Your task to perform on an android device: Go to Android settings Image 0: 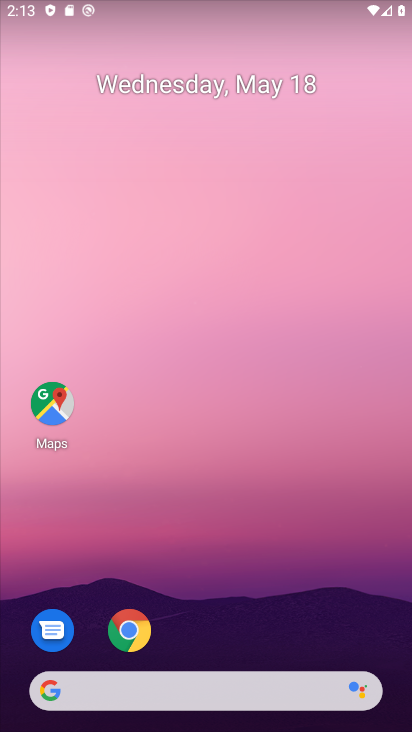
Step 0: drag from (225, 646) to (240, 478)
Your task to perform on an android device: Go to Android settings Image 1: 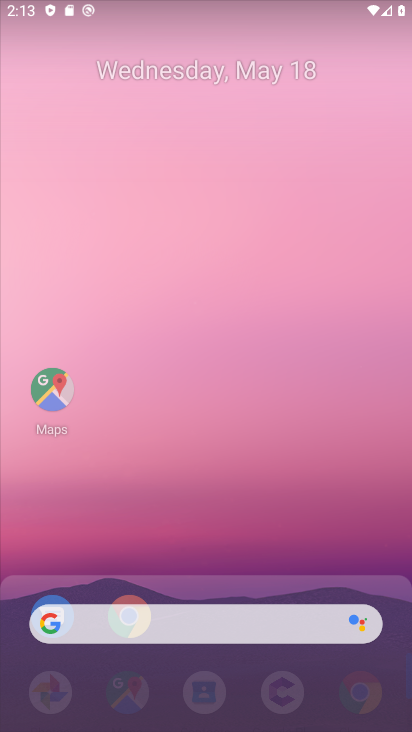
Step 1: click (304, 139)
Your task to perform on an android device: Go to Android settings Image 2: 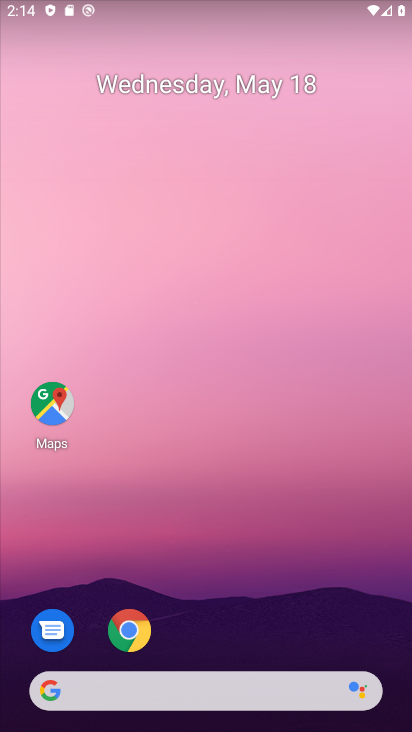
Step 2: drag from (212, 649) to (256, 136)
Your task to perform on an android device: Go to Android settings Image 3: 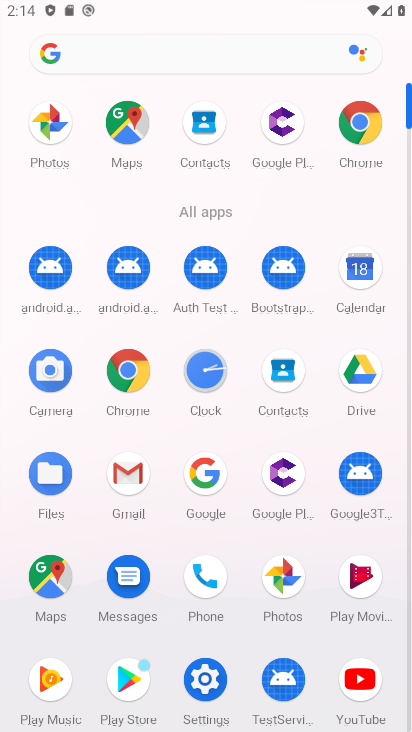
Step 3: click (205, 677)
Your task to perform on an android device: Go to Android settings Image 4: 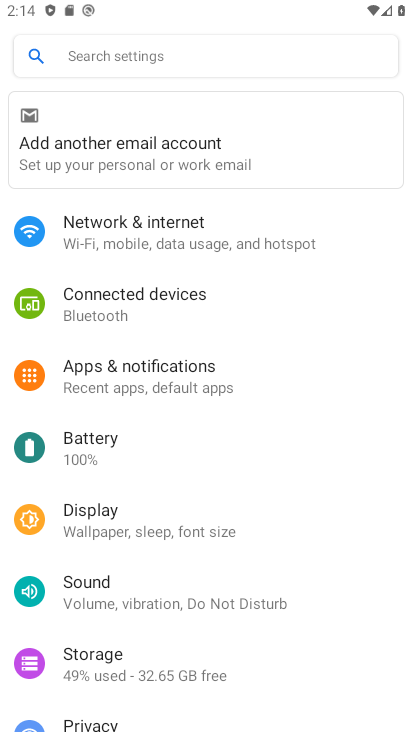
Step 4: drag from (164, 641) to (213, 295)
Your task to perform on an android device: Go to Android settings Image 5: 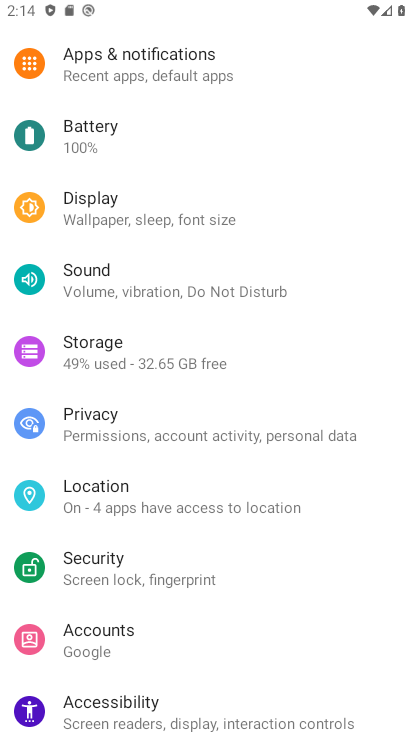
Step 5: drag from (181, 683) to (224, 261)
Your task to perform on an android device: Go to Android settings Image 6: 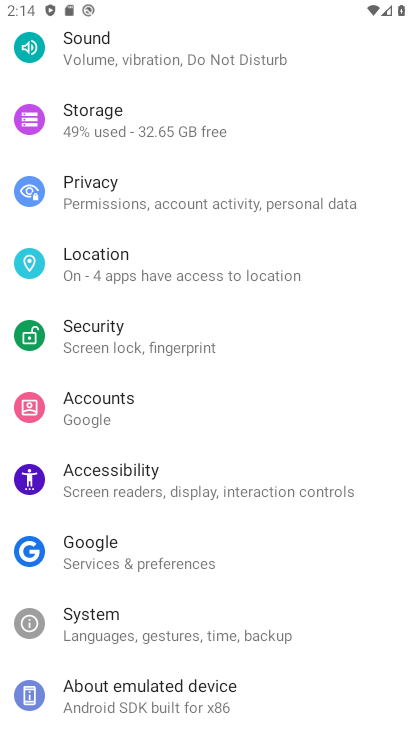
Step 6: click (193, 695)
Your task to perform on an android device: Go to Android settings Image 7: 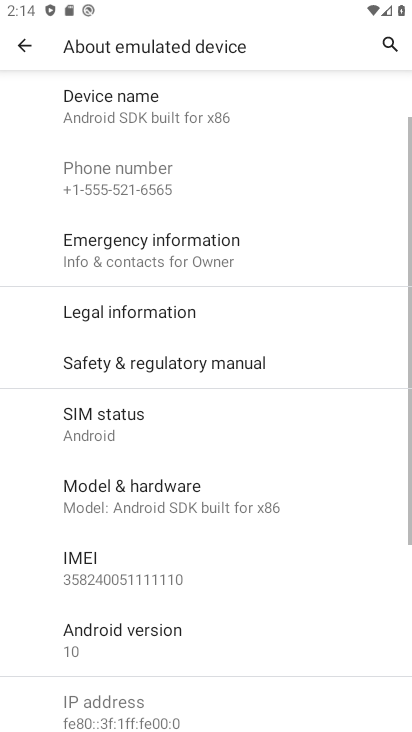
Step 7: click (184, 643)
Your task to perform on an android device: Go to Android settings Image 8: 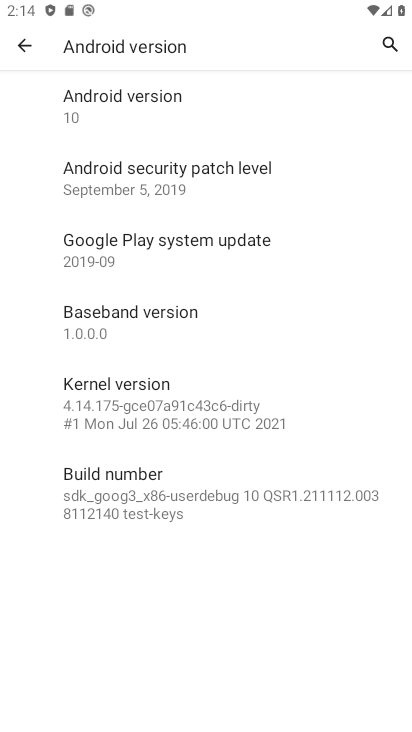
Step 8: task complete